Your task to perform on an android device: Go to Google Image 0: 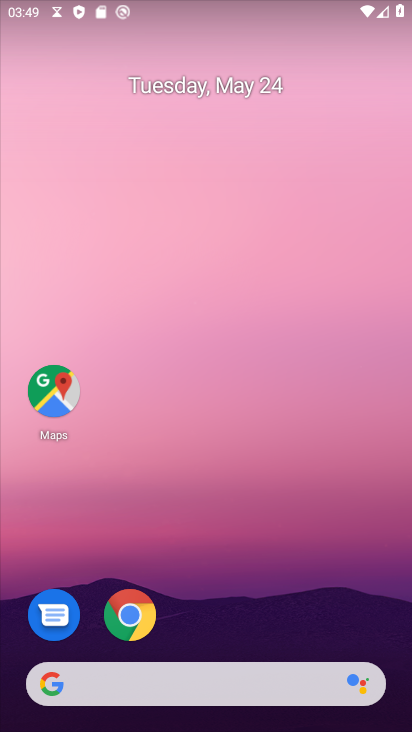
Step 0: drag from (189, 593) to (166, 60)
Your task to perform on an android device: Go to Google Image 1: 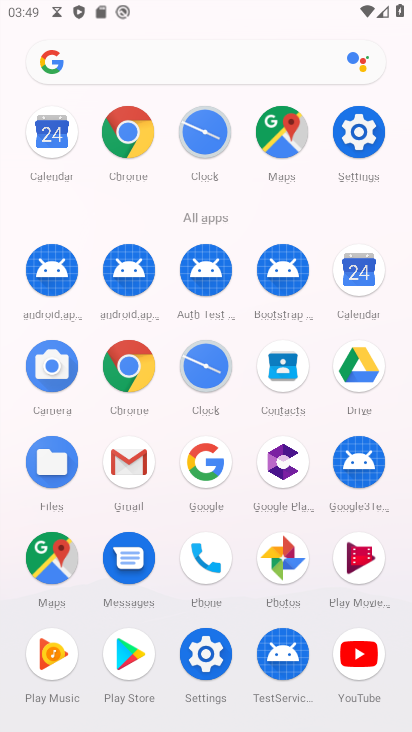
Step 1: click (129, 131)
Your task to perform on an android device: Go to Google Image 2: 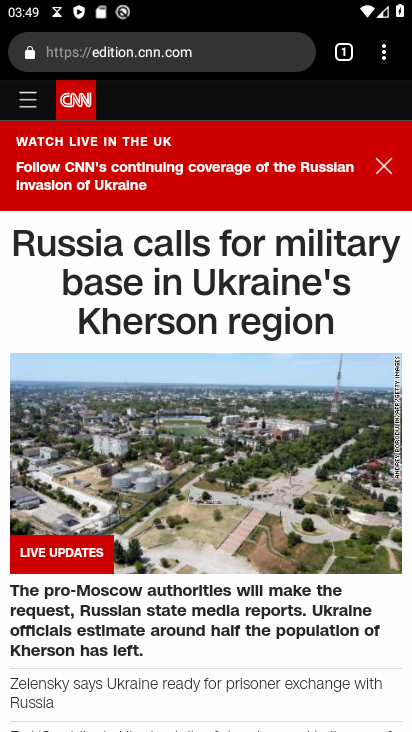
Step 2: click (122, 33)
Your task to perform on an android device: Go to Google Image 3: 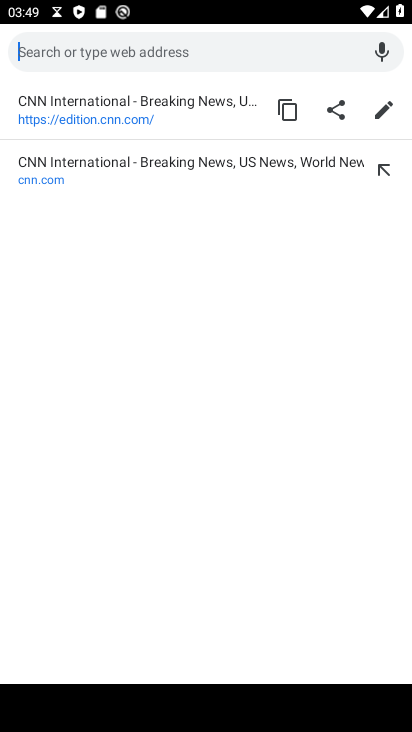
Step 3: type "Google"
Your task to perform on an android device: Go to Google Image 4: 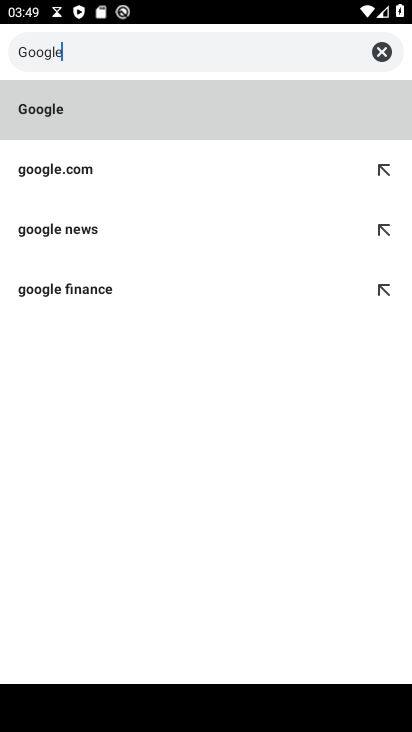
Step 4: type ""
Your task to perform on an android device: Go to Google Image 5: 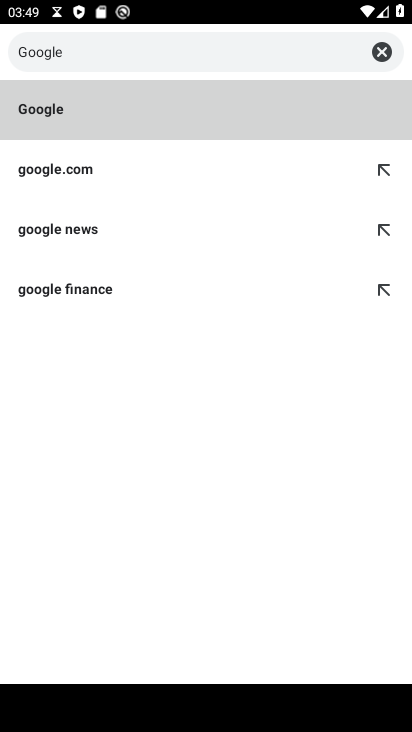
Step 5: click (60, 163)
Your task to perform on an android device: Go to Google Image 6: 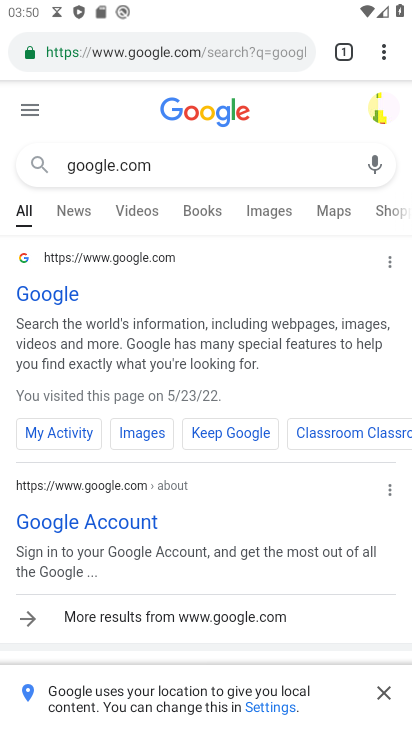
Step 6: click (48, 291)
Your task to perform on an android device: Go to Google Image 7: 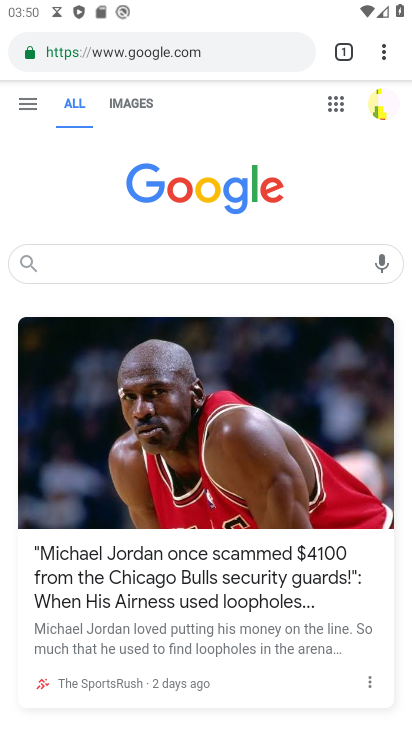
Step 7: task complete